Your task to perform on an android device: clear all cookies in the chrome app Image 0: 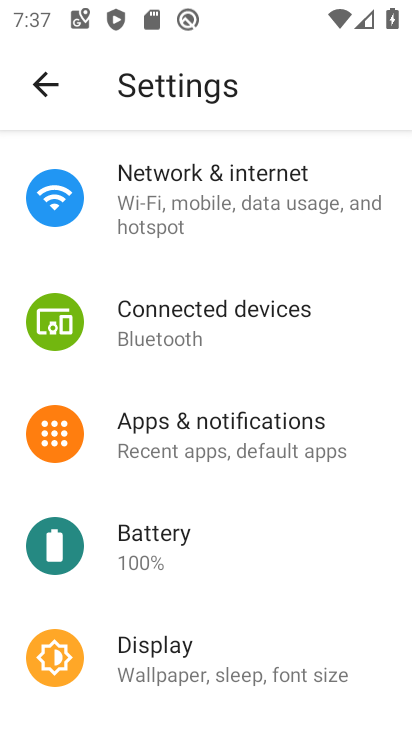
Step 0: press home button
Your task to perform on an android device: clear all cookies in the chrome app Image 1: 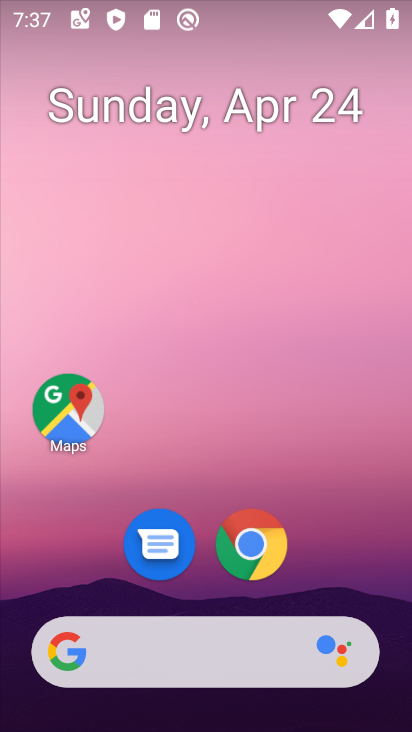
Step 1: drag from (138, 649) to (284, 53)
Your task to perform on an android device: clear all cookies in the chrome app Image 2: 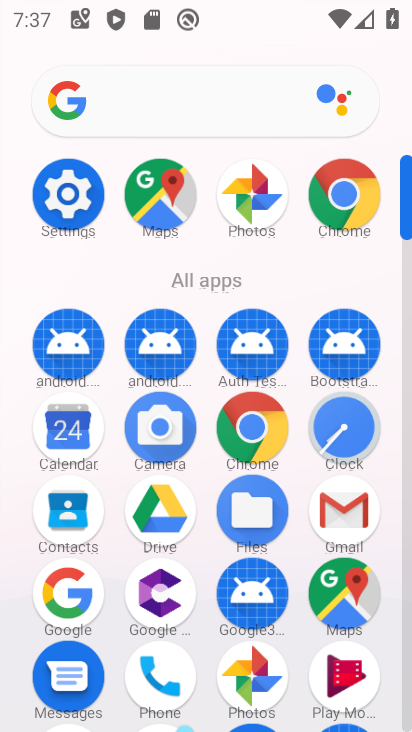
Step 2: click (351, 198)
Your task to perform on an android device: clear all cookies in the chrome app Image 3: 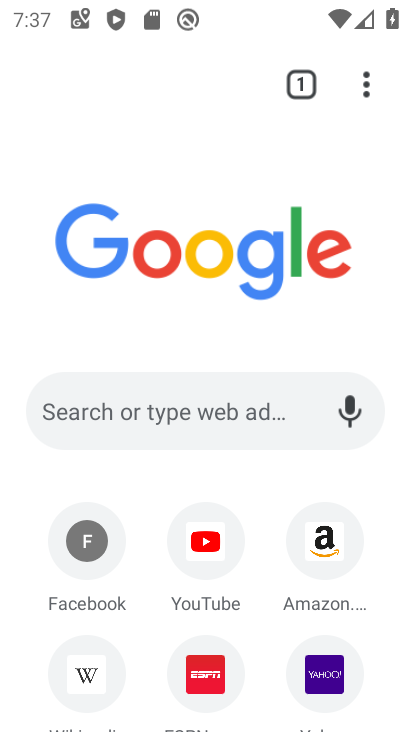
Step 3: click (363, 103)
Your task to perform on an android device: clear all cookies in the chrome app Image 4: 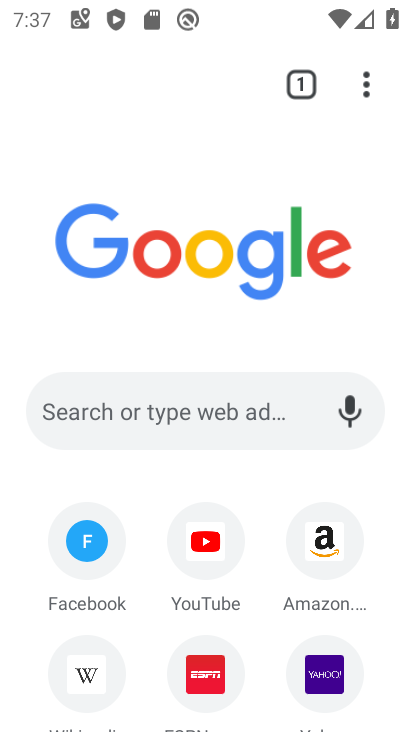
Step 4: drag from (362, 82) to (106, 592)
Your task to perform on an android device: clear all cookies in the chrome app Image 5: 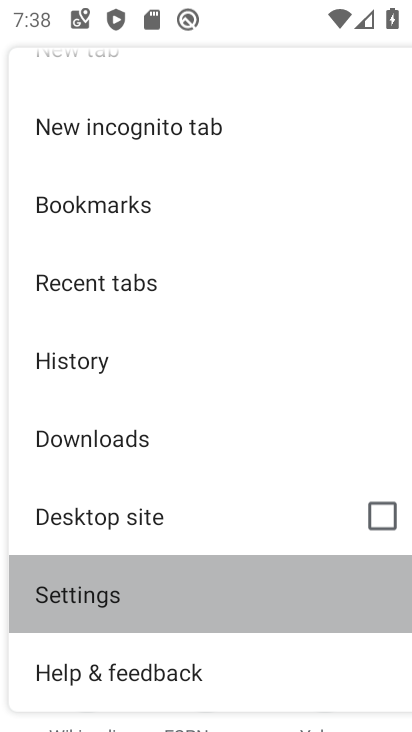
Step 5: click (106, 592)
Your task to perform on an android device: clear all cookies in the chrome app Image 6: 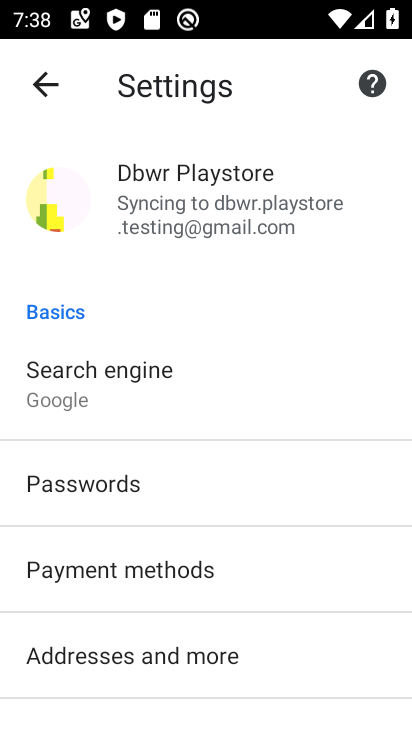
Step 6: drag from (105, 639) to (277, 165)
Your task to perform on an android device: clear all cookies in the chrome app Image 7: 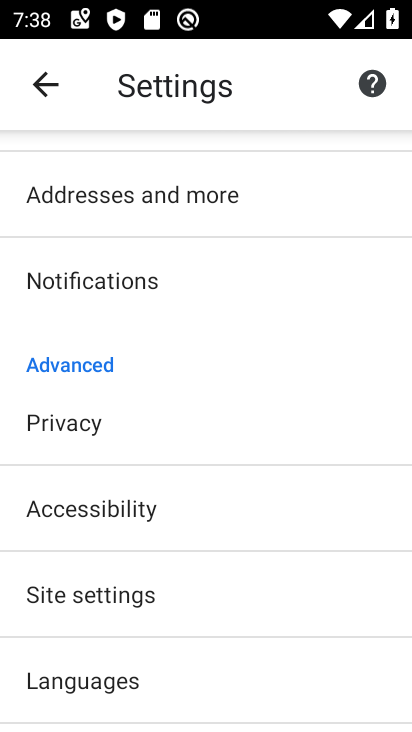
Step 7: click (68, 422)
Your task to perform on an android device: clear all cookies in the chrome app Image 8: 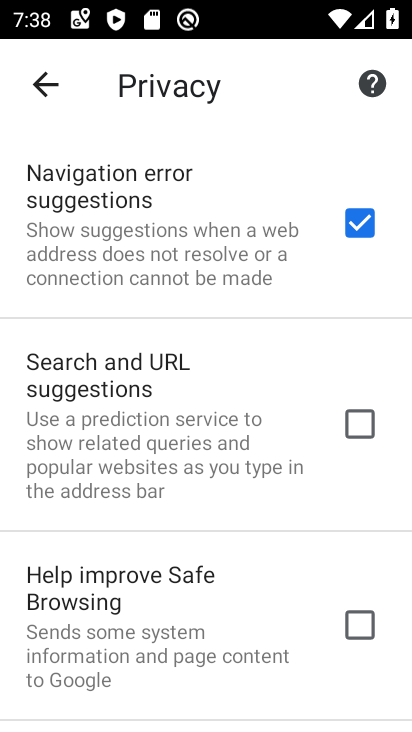
Step 8: drag from (136, 632) to (334, 75)
Your task to perform on an android device: clear all cookies in the chrome app Image 9: 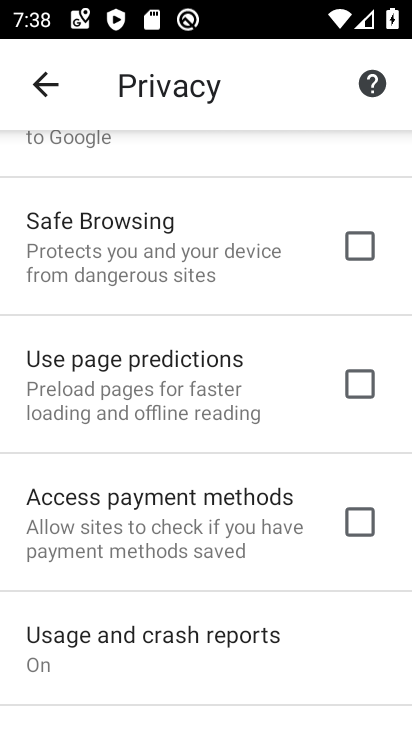
Step 9: drag from (126, 655) to (297, 166)
Your task to perform on an android device: clear all cookies in the chrome app Image 10: 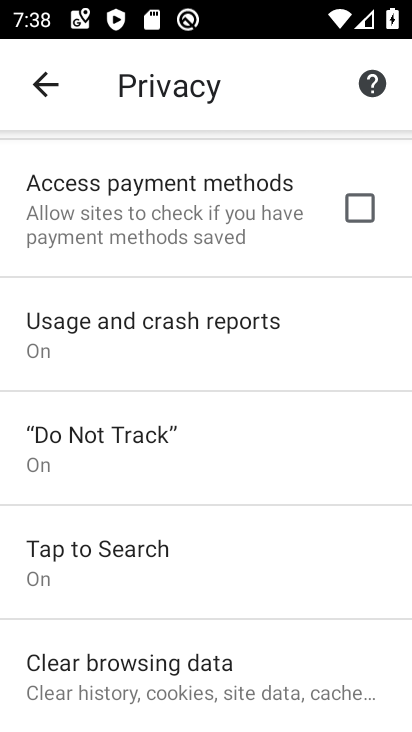
Step 10: click (148, 667)
Your task to perform on an android device: clear all cookies in the chrome app Image 11: 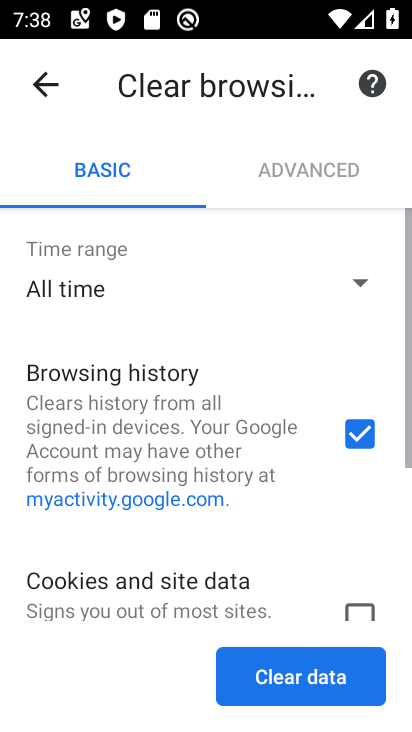
Step 11: drag from (175, 554) to (241, 285)
Your task to perform on an android device: clear all cookies in the chrome app Image 12: 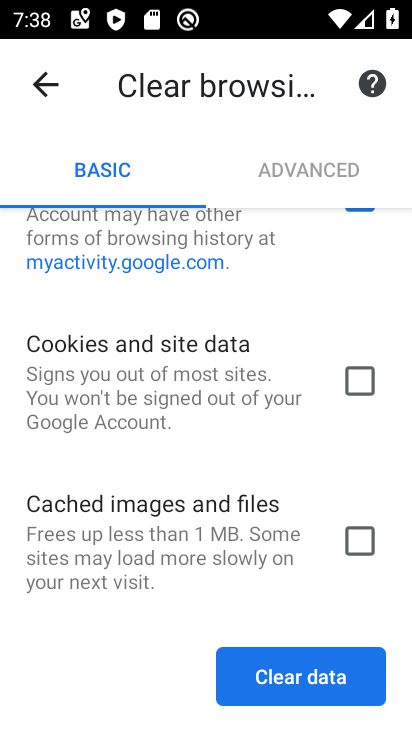
Step 12: drag from (306, 263) to (297, 387)
Your task to perform on an android device: clear all cookies in the chrome app Image 13: 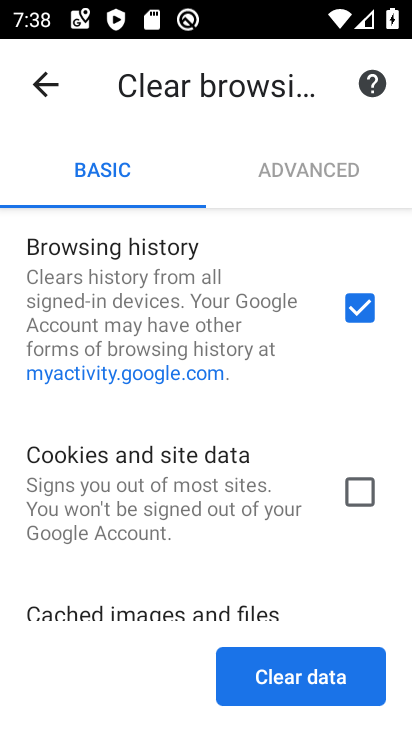
Step 13: click (365, 305)
Your task to perform on an android device: clear all cookies in the chrome app Image 14: 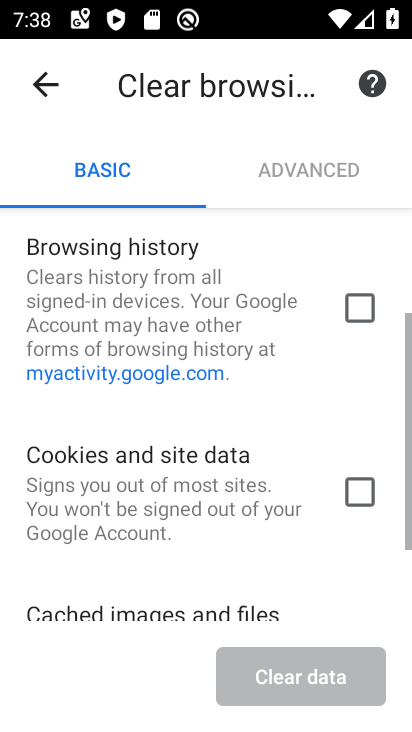
Step 14: click (354, 498)
Your task to perform on an android device: clear all cookies in the chrome app Image 15: 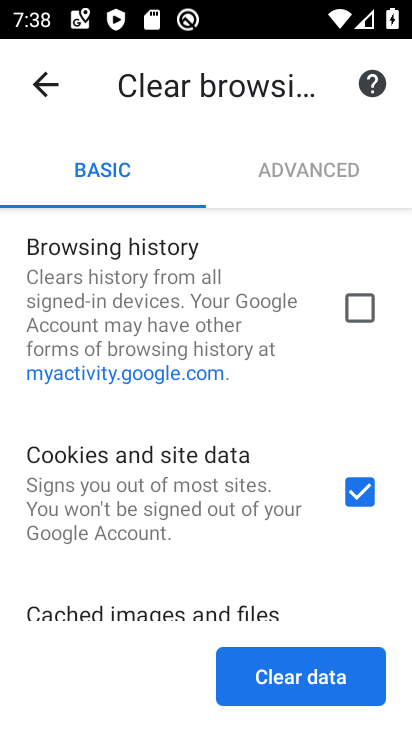
Step 15: click (281, 679)
Your task to perform on an android device: clear all cookies in the chrome app Image 16: 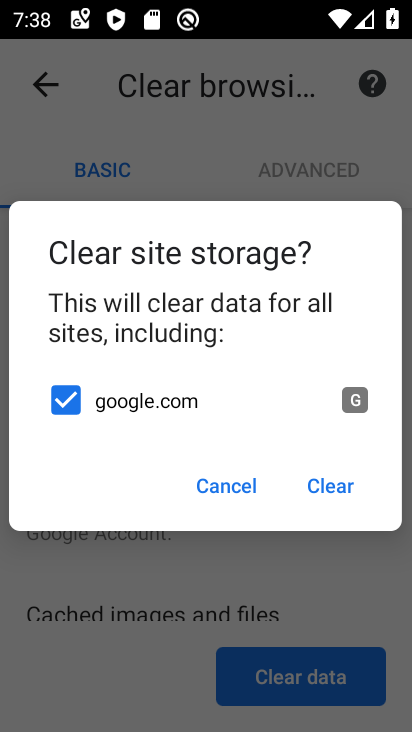
Step 16: click (336, 485)
Your task to perform on an android device: clear all cookies in the chrome app Image 17: 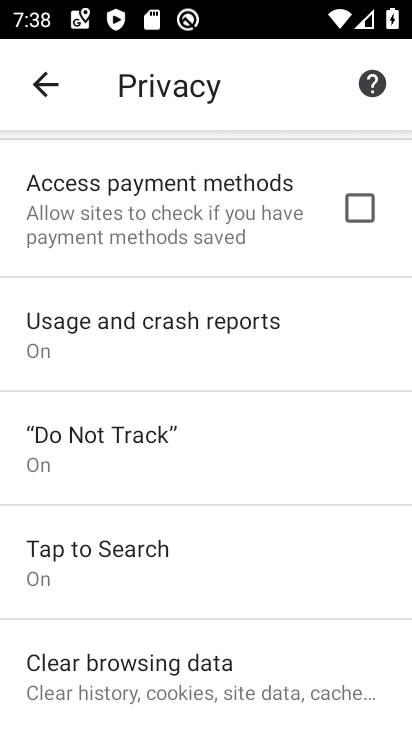
Step 17: task complete